Your task to perform on an android device: Do I have any events tomorrow? Image 0: 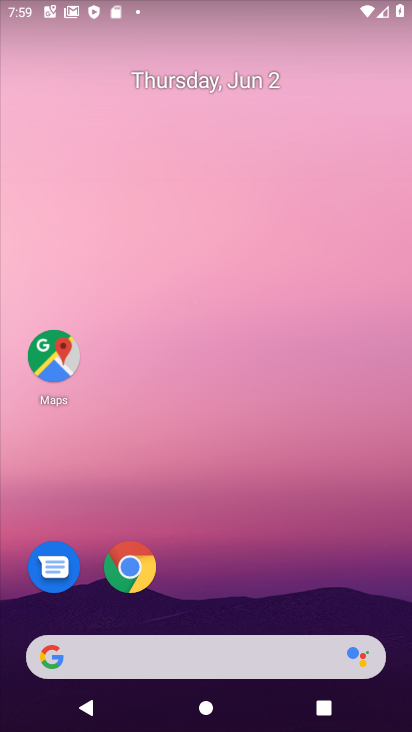
Step 0: drag from (230, 572) to (185, 123)
Your task to perform on an android device: Do I have any events tomorrow? Image 1: 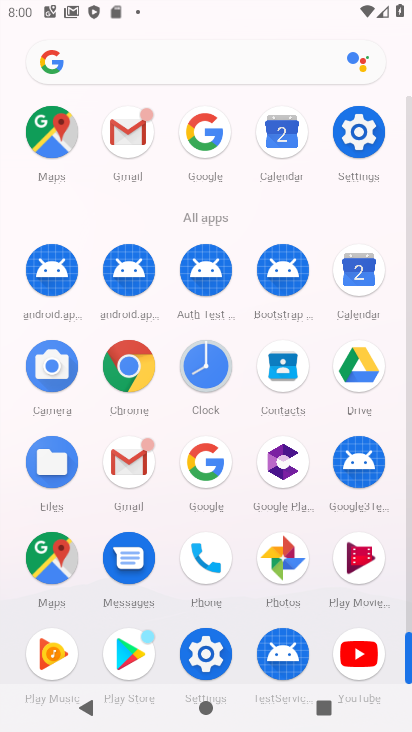
Step 1: click (281, 132)
Your task to perform on an android device: Do I have any events tomorrow? Image 2: 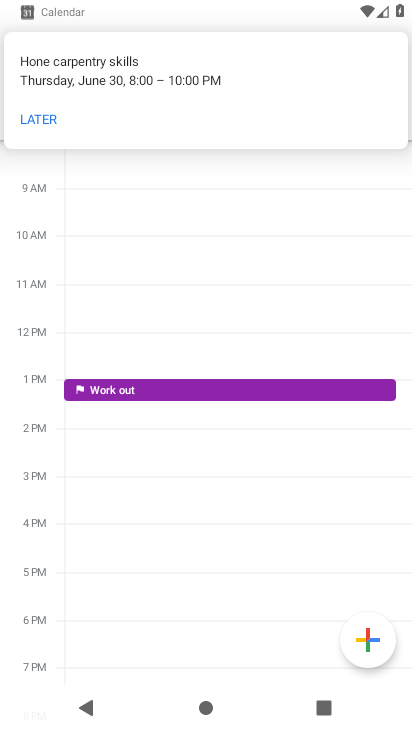
Step 2: click (42, 120)
Your task to perform on an android device: Do I have any events tomorrow? Image 3: 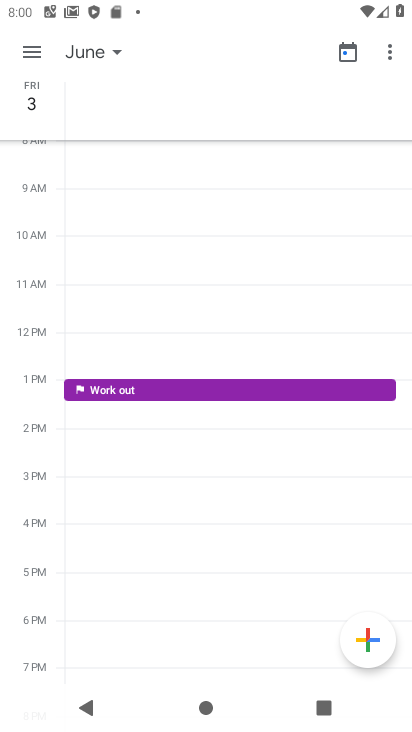
Step 3: click (348, 54)
Your task to perform on an android device: Do I have any events tomorrow? Image 4: 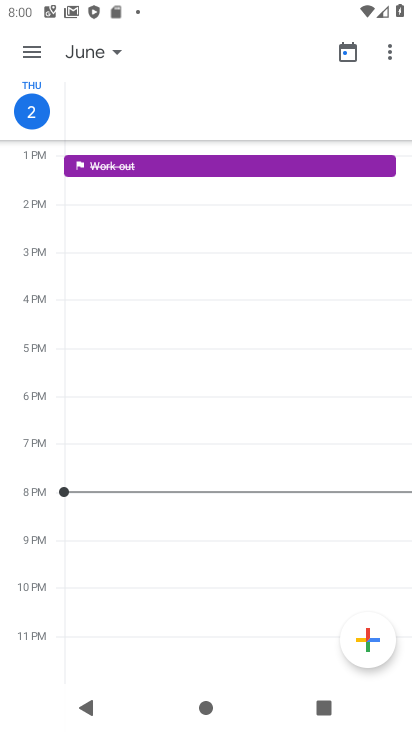
Step 4: click (119, 51)
Your task to perform on an android device: Do I have any events tomorrow? Image 5: 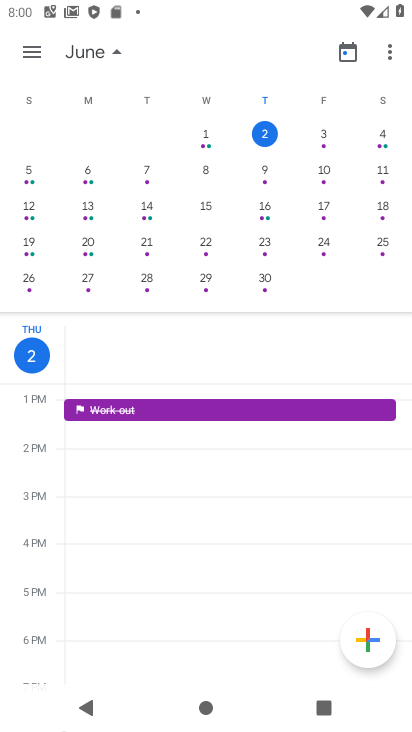
Step 5: click (322, 133)
Your task to perform on an android device: Do I have any events tomorrow? Image 6: 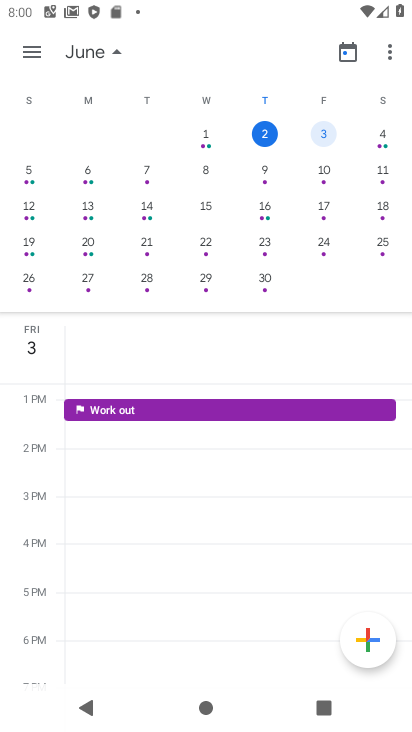
Step 6: click (39, 59)
Your task to perform on an android device: Do I have any events tomorrow? Image 7: 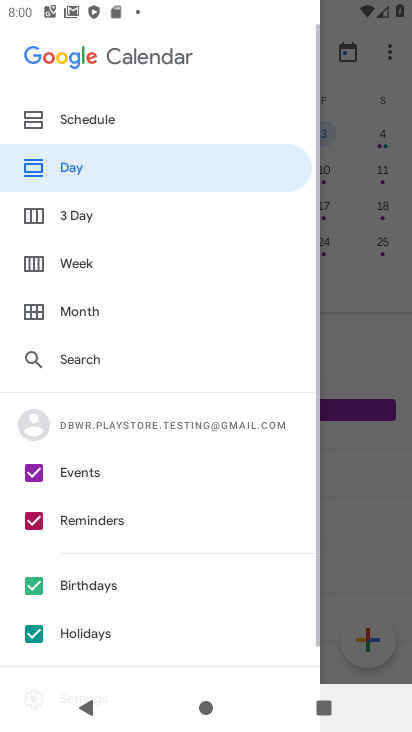
Step 7: click (89, 120)
Your task to perform on an android device: Do I have any events tomorrow? Image 8: 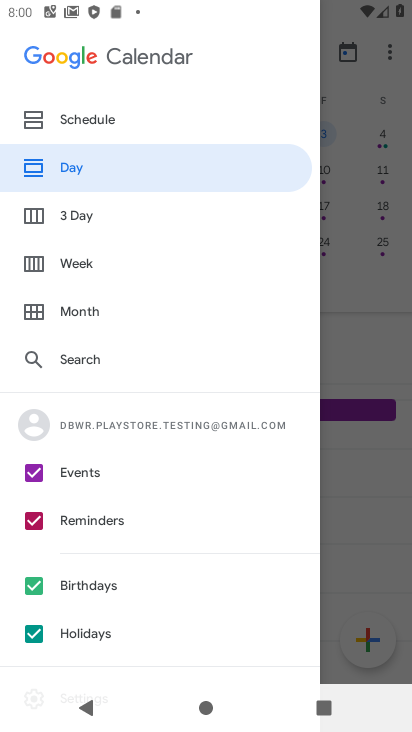
Step 8: click (89, 120)
Your task to perform on an android device: Do I have any events tomorrow? Image 9: 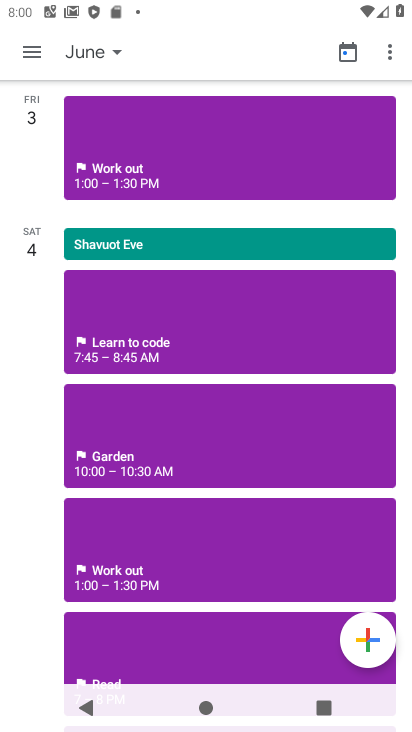
Step 9: click (136, 151)
Your task to perform on an android device: Do I have any events tomorrow? Image 10: 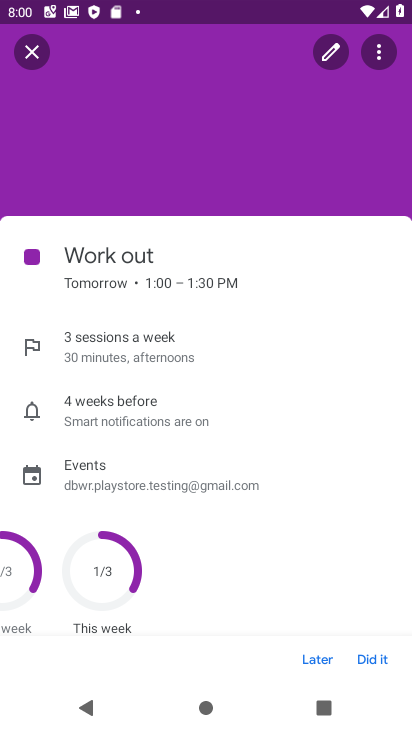
Step 10: task complete